Your task to perform on an android device: all mails in gmail Image 0: 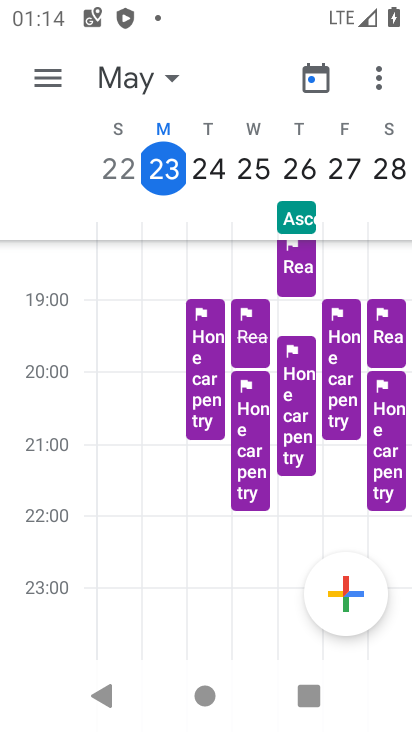
Step 0: press home button
Your task to perform on an android device: all mails in gmail Image 1: 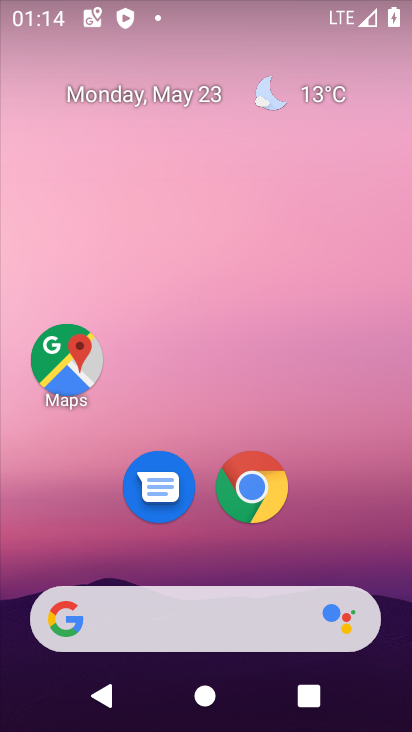
Step 1: drag from (402, 606) to (350, 45)
Your task to perform on an android device: all mails in gmail Image 2: 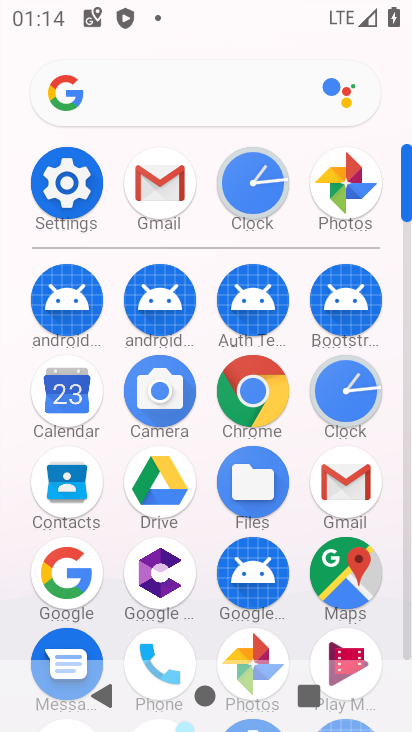
Step 2: click (405, 638)
Your task to perform on an android device: all mails in gmail Image 3: 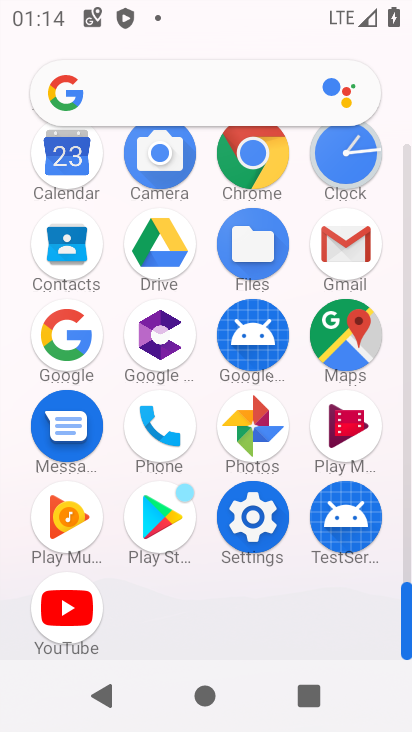
Step 3: click (347, 243)
Your task to perform on an android device: all mails in gmail Image 4: 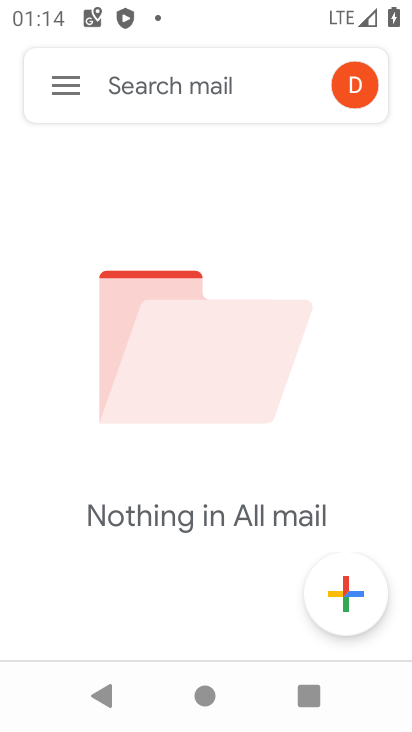
Step 4: click (66, 79)
Your task to perform on an android device: all mails in gmail Image 5: 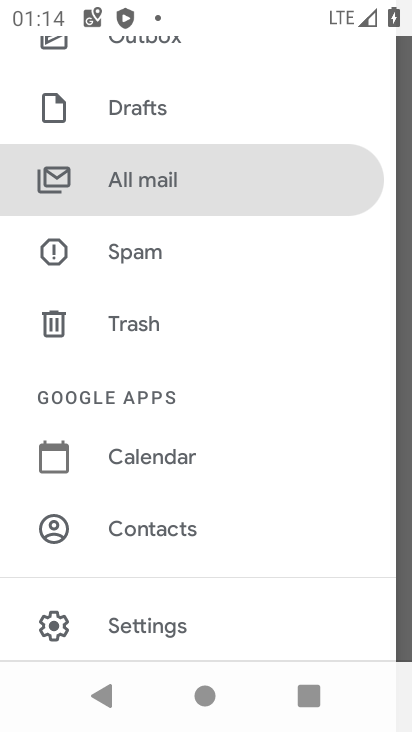
Step 5: drag from (371, 141) to (325, 499)
Your task to perform on an android device: all mails in gmail Image 6: 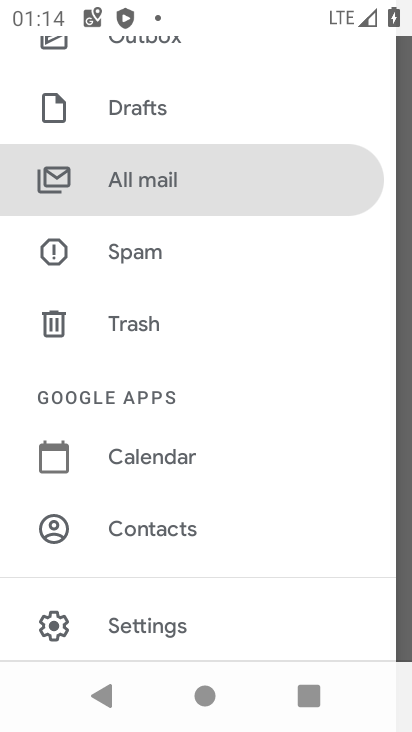
Step 6: drag from (363, 116) to (310, 455)
Your task to perform on an android device: all mails in gmail Image 7: 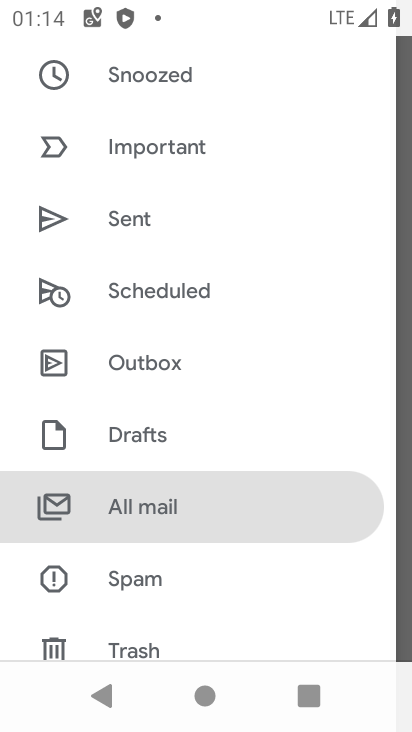
Step 7: click (229, 519)
Your task to perform on an android device: all mails in gmail Image 8: 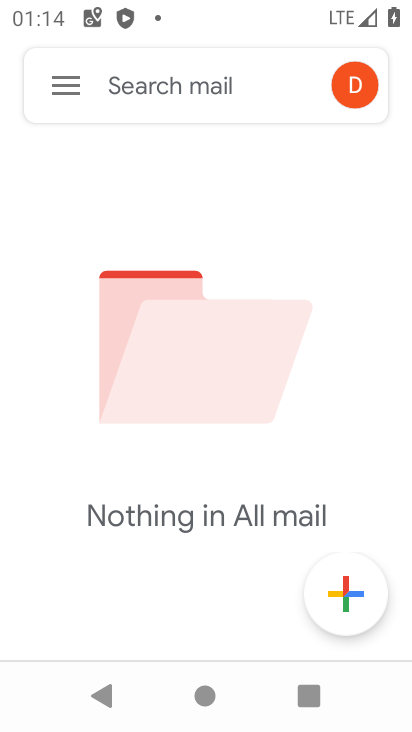
Step 8: task complete